Your task to perform on an android device: check storage Image 0: 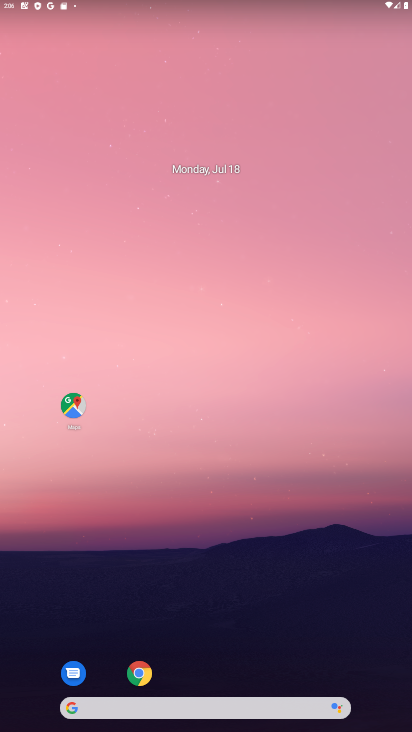
Step 0: drag from (229, 705) to (243, 395)
Your task to perform on an android device: check storage Image 1: 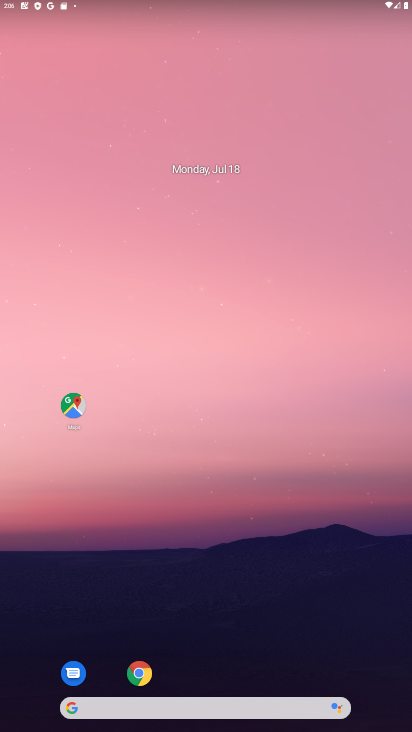
Step 1: drag from (192, 709) to (244, 202)
Your task to perform on an android device: check storage Image 2: 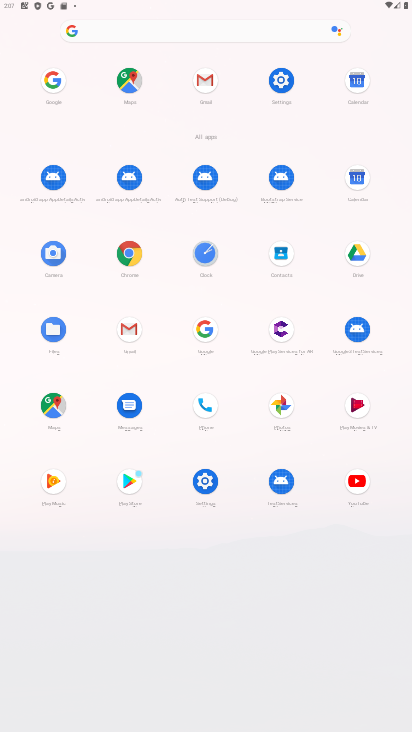
Step 2: click (281, 81)
Your task to perform on an android device: check storage Image 3: 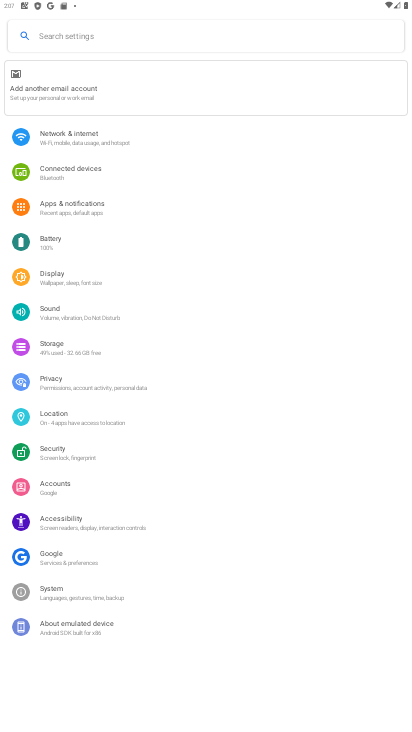
Step 3: click (73, 348)
Your task to perform on an android device: check storage Image 4: 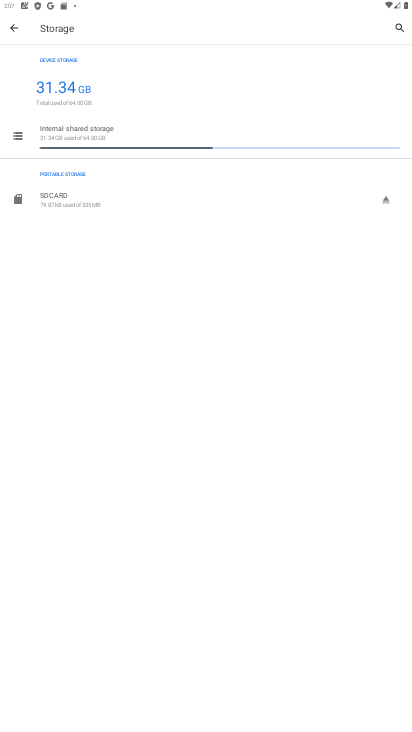
Step 4: task complete